Your task to perform on an android device: turn off wifi Image 0: 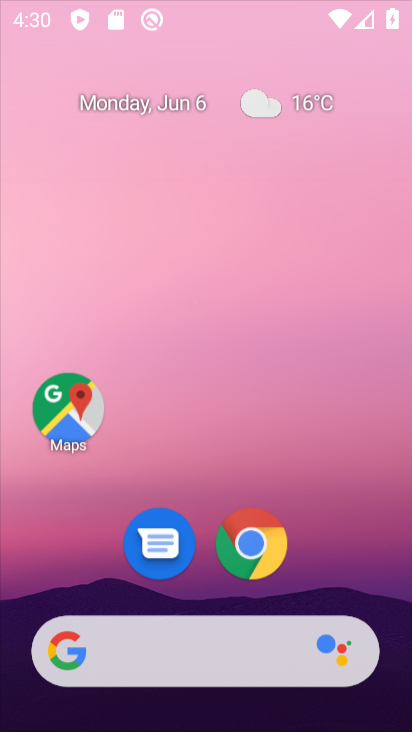
Step 0: press home button
Your task to perform on an android device: turn off wifi Image 1: 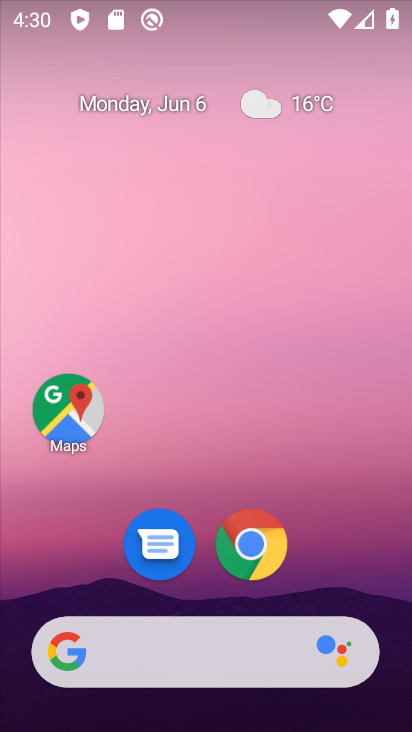
Step 1: drag from (219, 7) to (246, 624)
Your task to perform on an android device: turn off wifi Image 2: 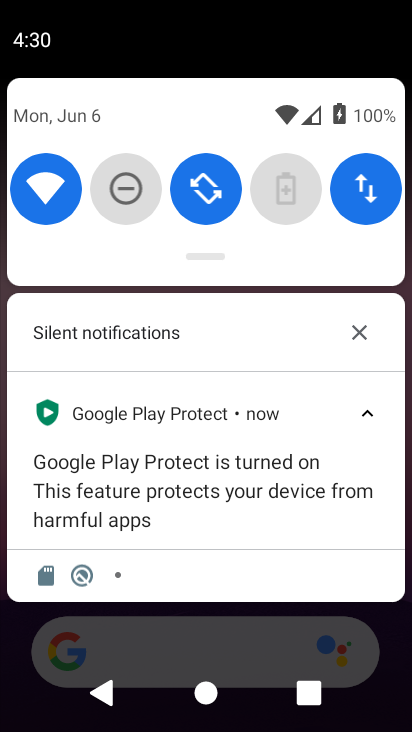
Step 2: click (54, 186)
Your task to perform on an android device: turn off wifi Image 3: 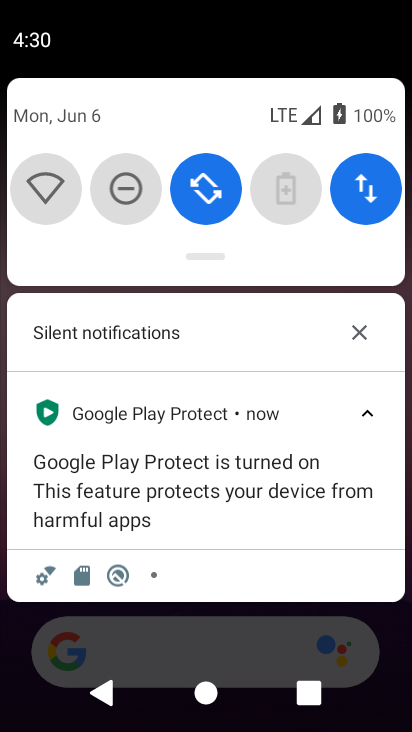
Step 3: task complete